Your task to perform on an android device: check storage Image 0: 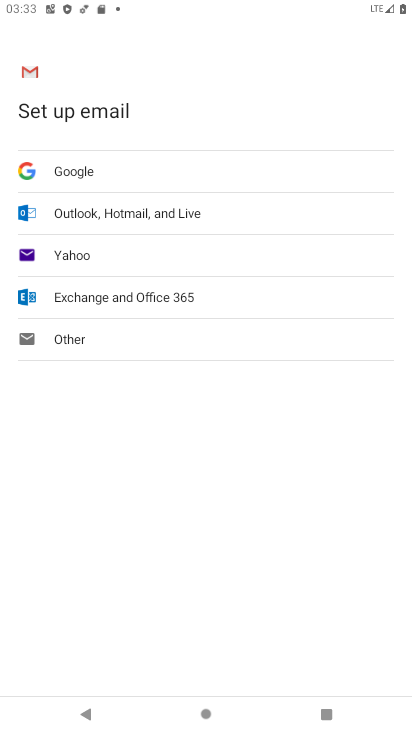
Step 0: press back button
Your task to perform on an android device: check storage Image 1: 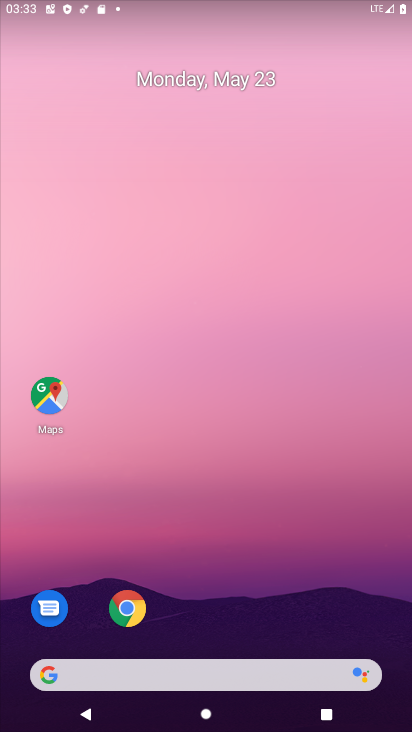
Step 1: drag from (264, 624) to (199, 212)
Your task to perform on an android device: check storage Image 2: 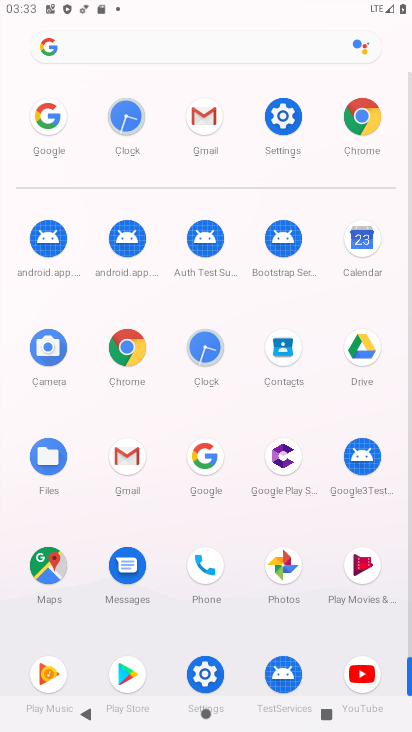
Step 2: click (204, 673)
Your task to perform on an android device: check storage Image 3: 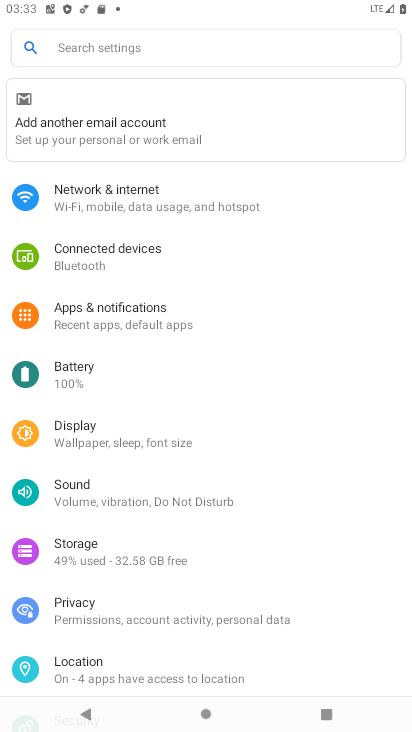
Step 3: click (115, 554)
Your task to perform on an android device: check storage Image 4: 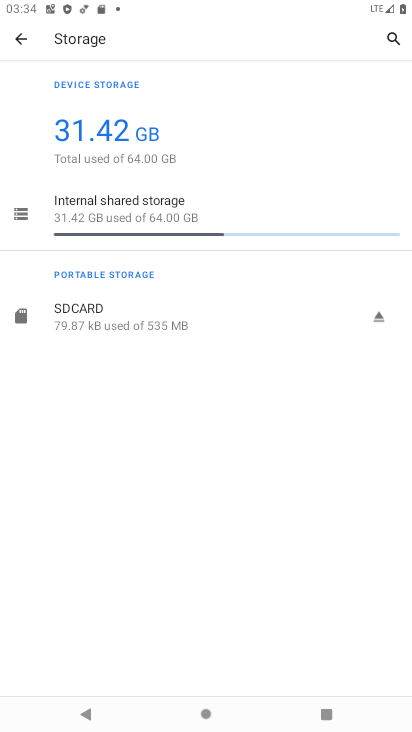
Step 4: task complete